Your task to perform on an android device: Open the stopwatch Image 0: 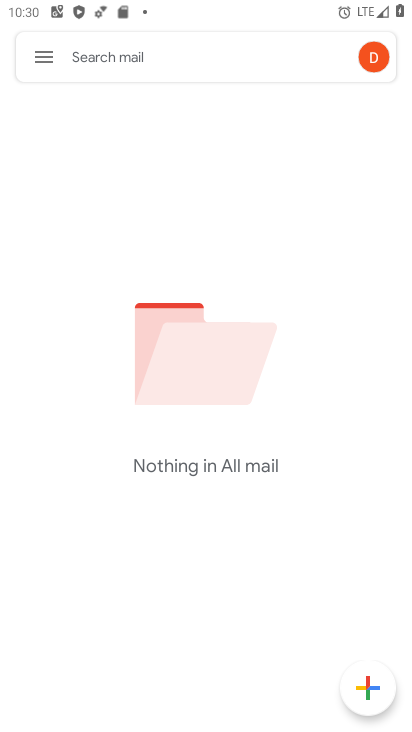
Step 0: press home button
Your task to perform on an android device: Open the stopwatch Image 1: 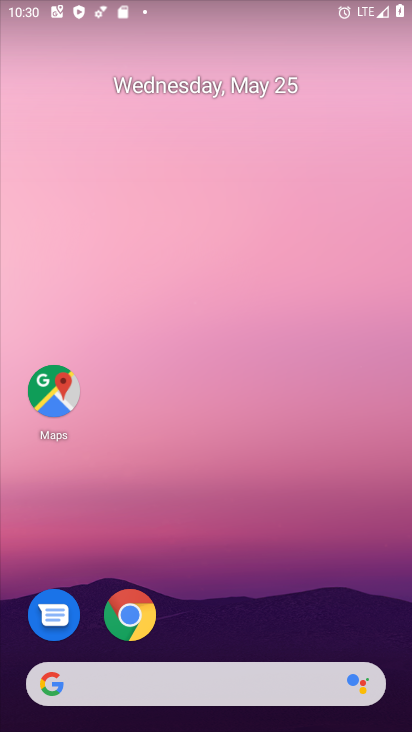
Step 1: drag from (228, 467) to (264, 61)
Your task to perform on an android device: Open the stopwatch Image 2: 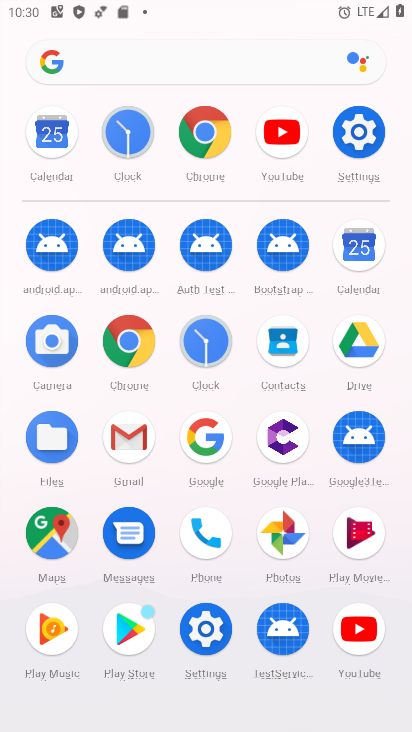
Step 2: click (215, 340)
Your task to perform on an android device: Open the stopwatch Image 3: 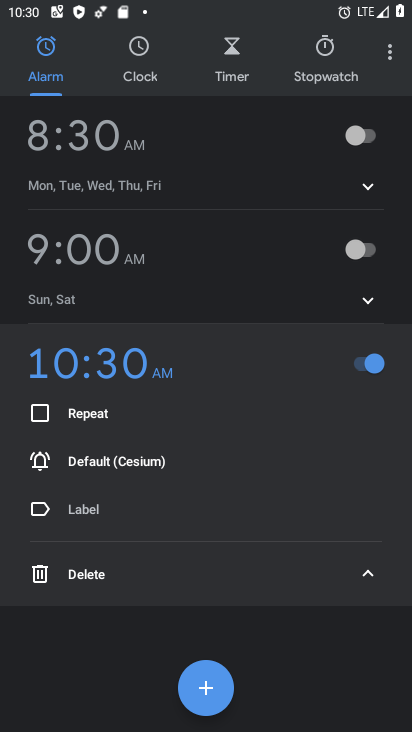
Step 3: click (321, 40)
Your task to perform on an android device: Open the stopwatch Image 4: 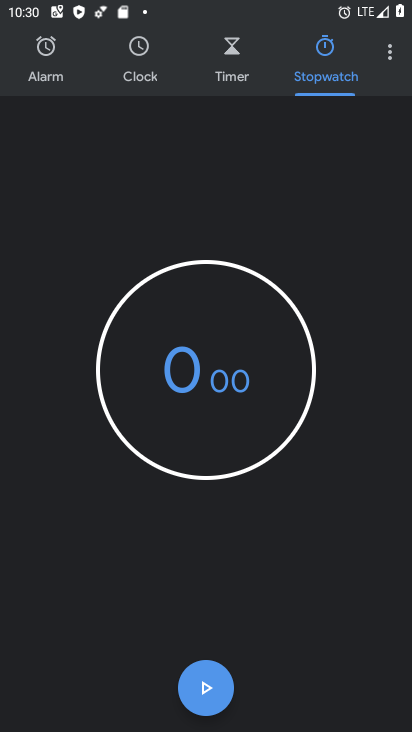
Step 4: task complete